Your task to perform on an android device: Open Chrome and go to settings Image 0: 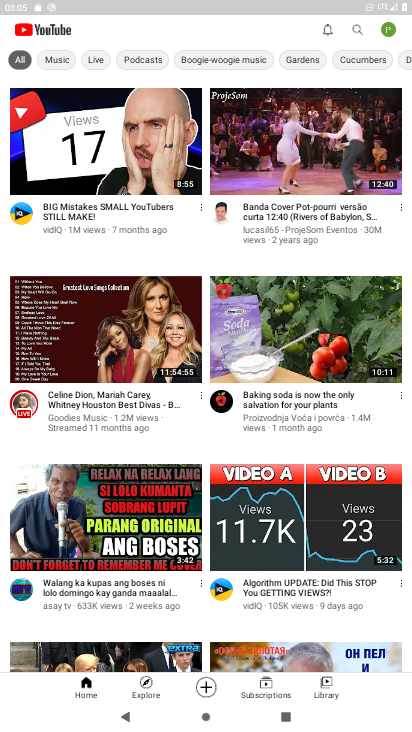
Step 0: press home button
Your task to perform on an android device: Open Chrome and go to settings Image 1: 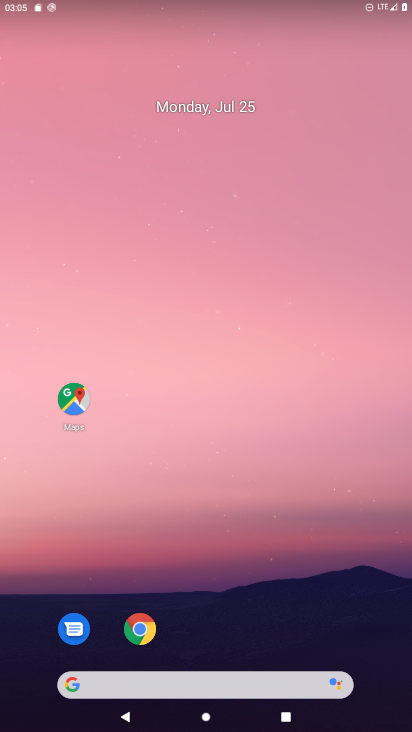
Step 1: drag from (233, 620) to (299, 102)
Your task to perform on an android device: Open Chrome and go to settings Image 2: 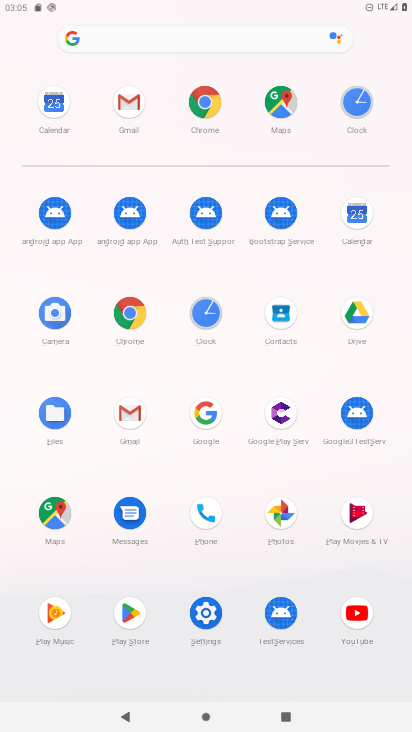
Step 2: click (124, 312)
Your task to perform on an android device: Open Chrome and go to settings Image 3: 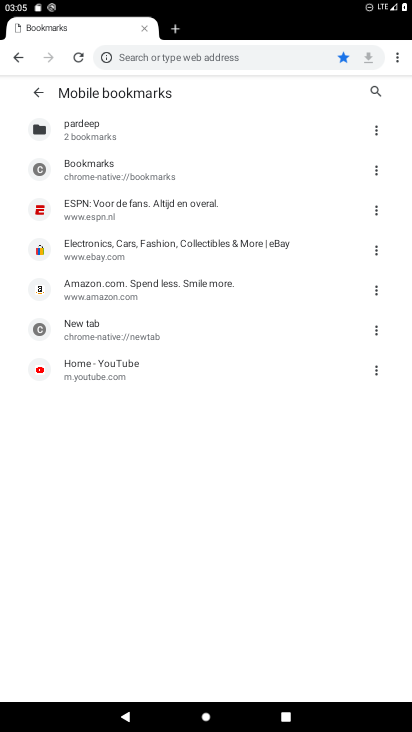
Step 3: press home button
Your task to perform on an android device: Open Chrome and go to settings Image 4: 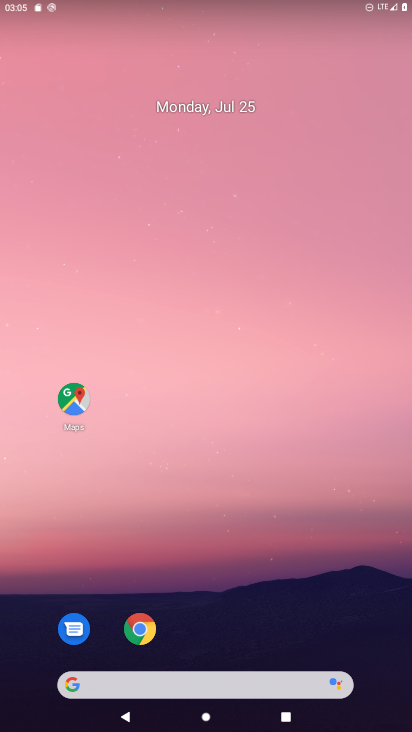
Step 4: drag from (288, 594) to (290, 138)
Your task to perform on an android device: Open Chrome and go to settings Image 5: 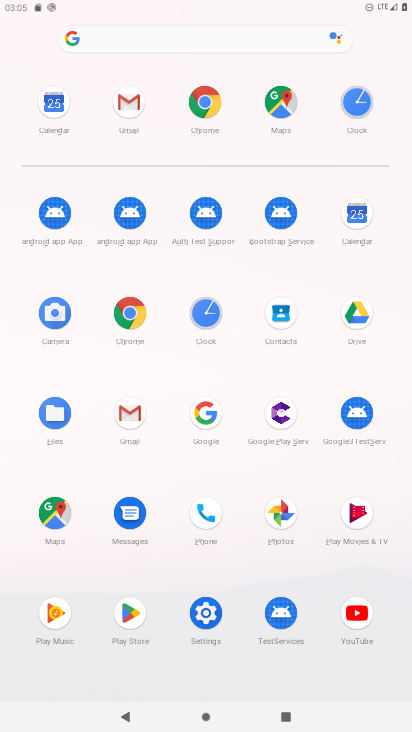
Step 5: click (129, 321)
Your task to perform on an android device: Open Chrome and go to settings Image 6: 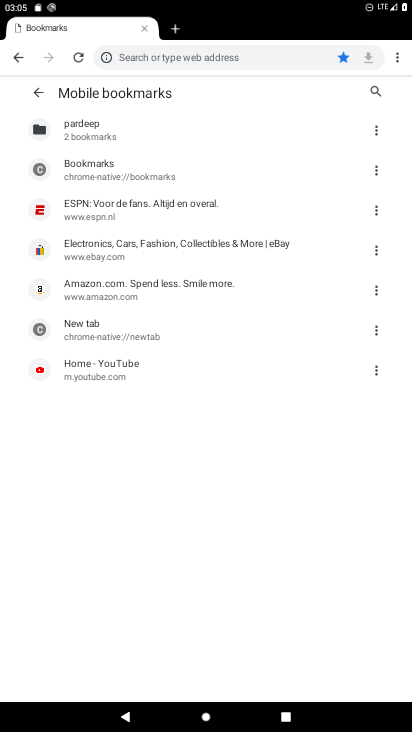
Step 6: task complete